Your task to perform on an android device: Open the calendar app, open the side menu, and click the "Day" option Image 0: 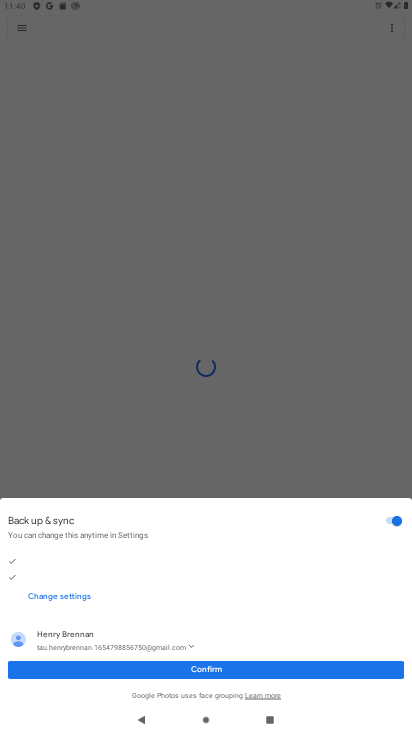
Step 0: press home button
Your task to perform on an android device: Open the calendar app, open the side menu, and click the "Day" option Image 1: 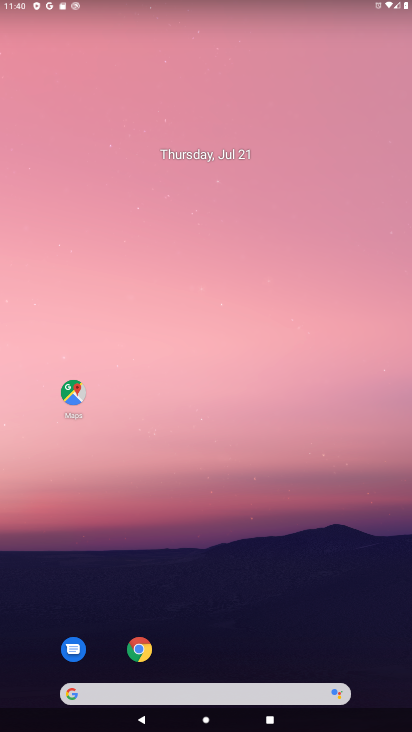
Step 1: drag from (240, 470) to (223, 121)
Your task to perform on an android device: Open the calendar app, open the side menu, and click the "Day" option Image 2: 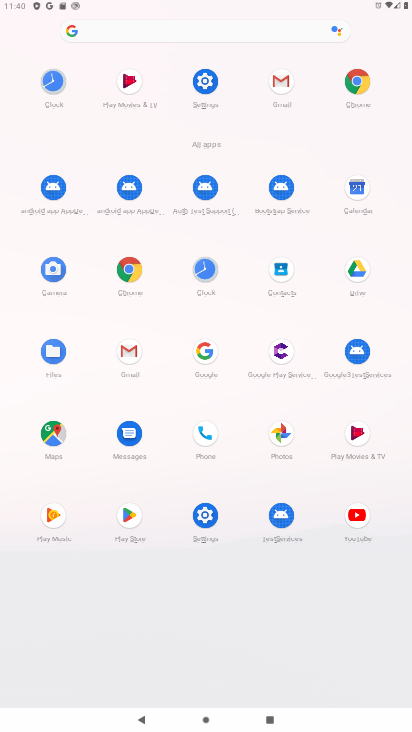
Step 2: click (208, 71)
Your task to perform on an android device: Open the calendar app, open the side menu, and click the "Day" option Image 3: 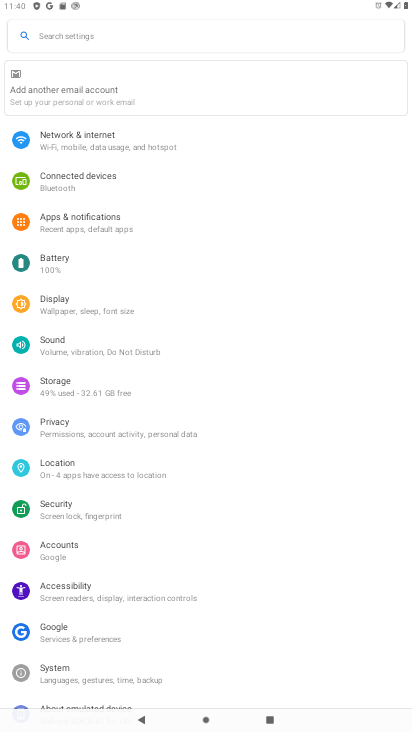
Step 3: press home button
Your task to perform on an android device: Open the calendar app, open the side menu, and click the "Day" option Image 4: 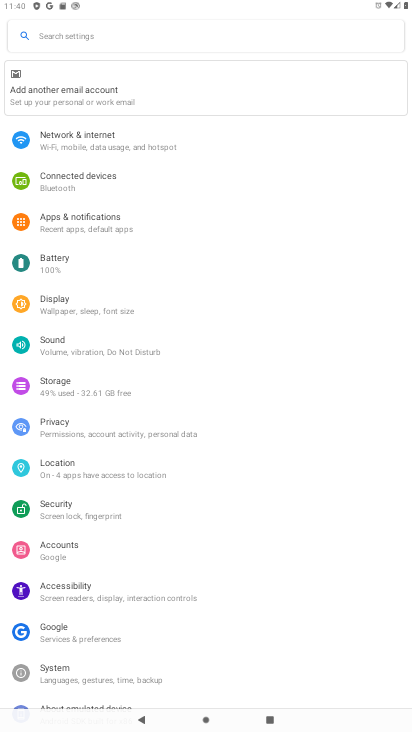
Step 4: press home button
Your task to perform on an android device: Open the calendar app, open the side menu, and click the "Day" option Image 5: 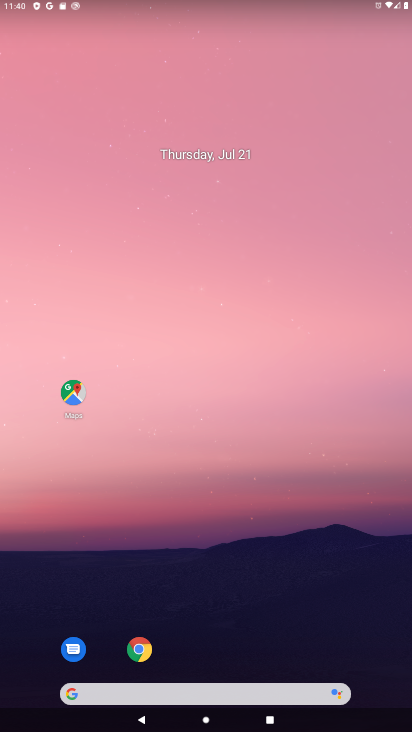
Step 5: drag from (334, 628) to (256, 88)
Your task to perform on an android device: Open the calendar app, open the side menu, and click the "Day" option Image 6: 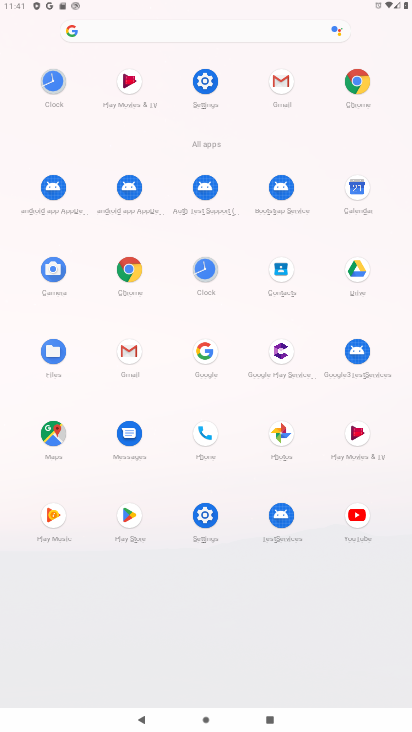
Step 6: click (354, 185)
Your task to perform on an android device: Open the calendar app, open the side menu, and click the "Day" option Image 7: 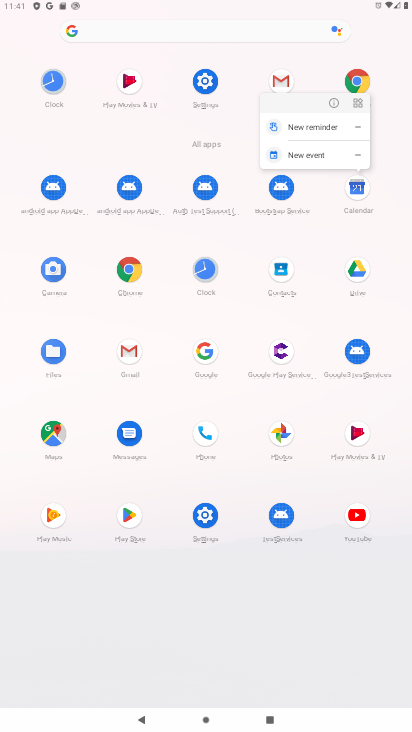
Step 7: click (360, 189)
Your task to perform on an android device: Open the calendar app, open the side menu, and click the "Day" option Image 8: 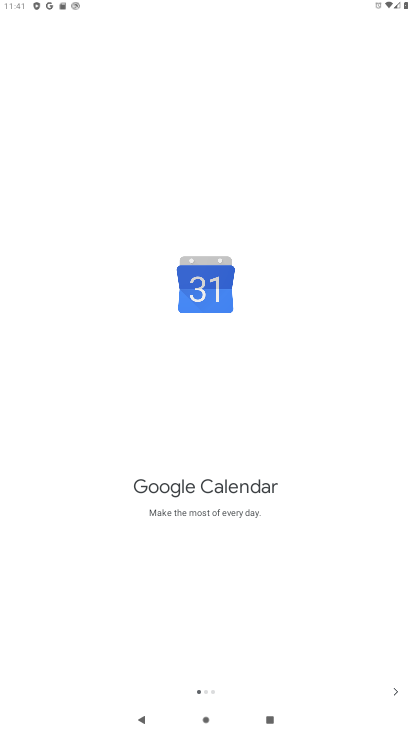
Step 8: click (398, 697)
Your task to perform on an android device: Open the calendar app, open the side menu, and click the "Day" option Image 9: 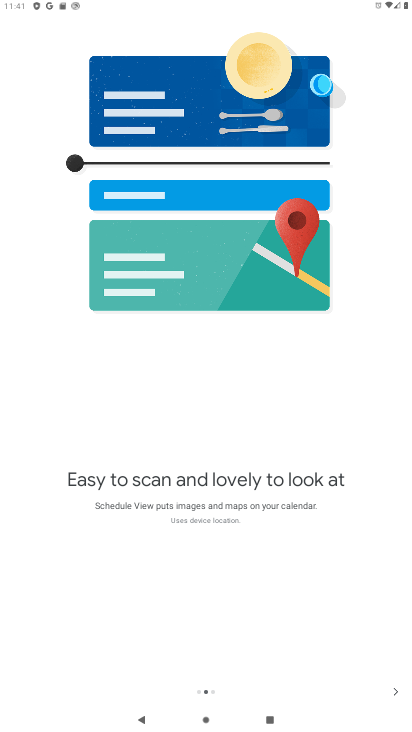
Step 9: click (398, 696)
Your task to perform on an android device: Open the calendar app, open the side menu, and click the "Day" option Image 10: 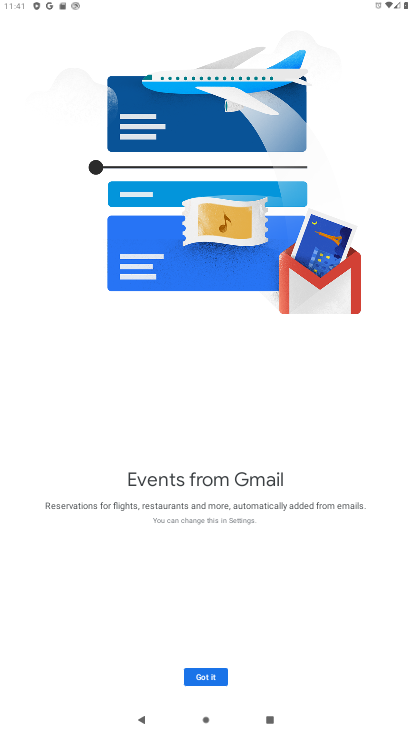
Step 10: click (207, 671)
Your task to perform on an android device: Open the calendar app, open the side menu, and click the "Day" option Image 11: 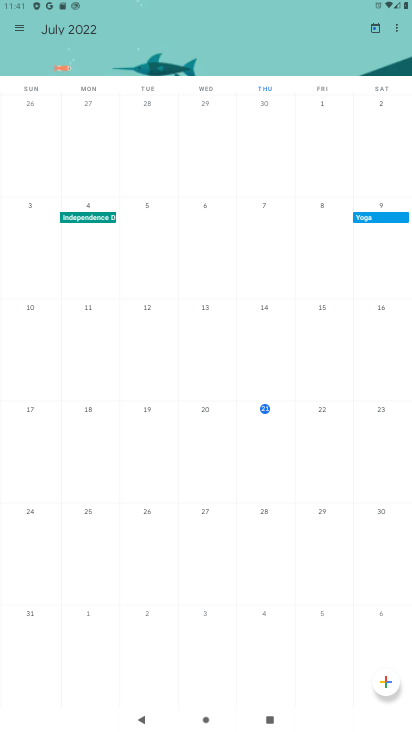
Step 11: click (22, 26)
Your task to perform on an android device: Open the calendar app, open the side menu, and click the "Day" option Image 12: 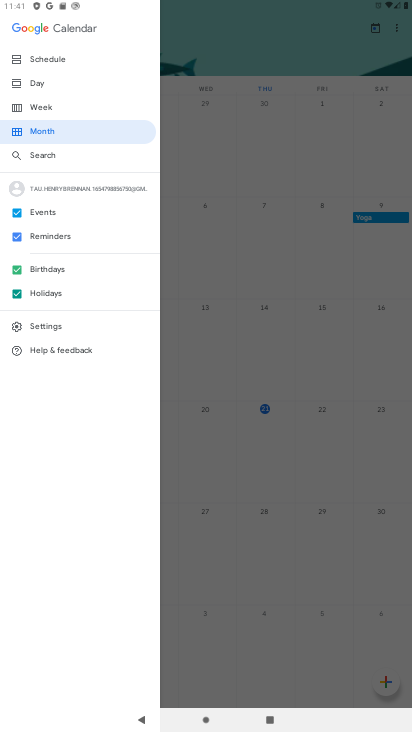
Step 12: click (49, 86)
Your task to perform on an android device: Open the calendar app, open the side menu, and click the "Day" option Image 13: 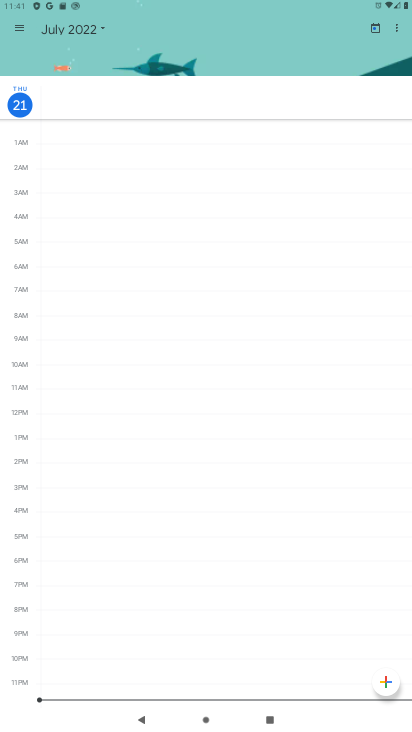
Step 13: task complete